Your task to perform on an android device: Clear the cart on bestbuy.com. Search for acer predator on bestbuy.com, select the first entry, and add it to the cart. Image 0: 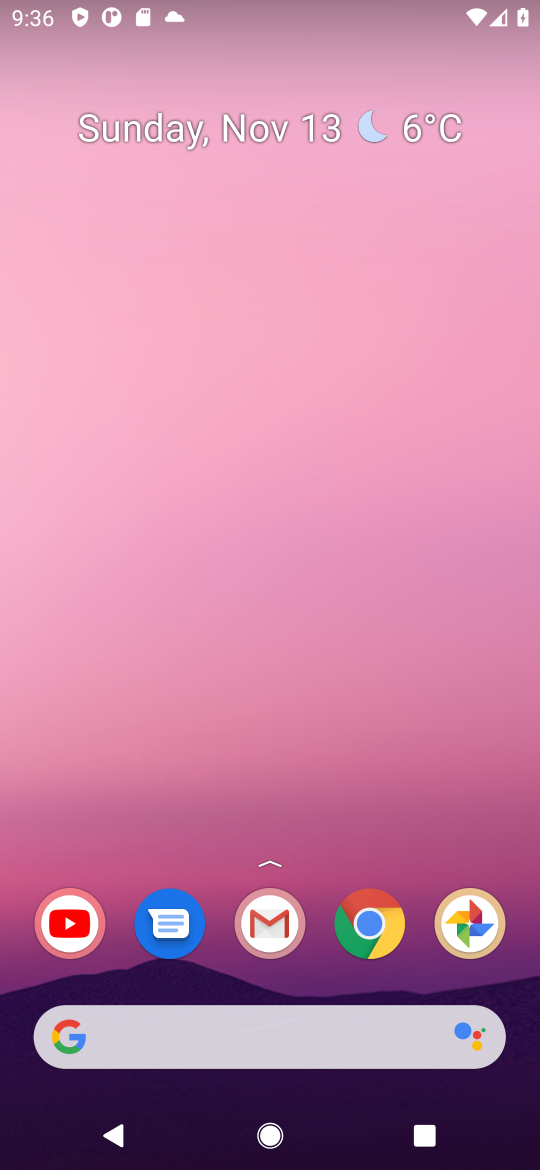
Step 0: click (359, 927)
Your task to perform on an android device: Clear the cart on bestbuy.com. Search for acer predator on bestbuy.com, select the first entry, and add it to the cart. Image 1: 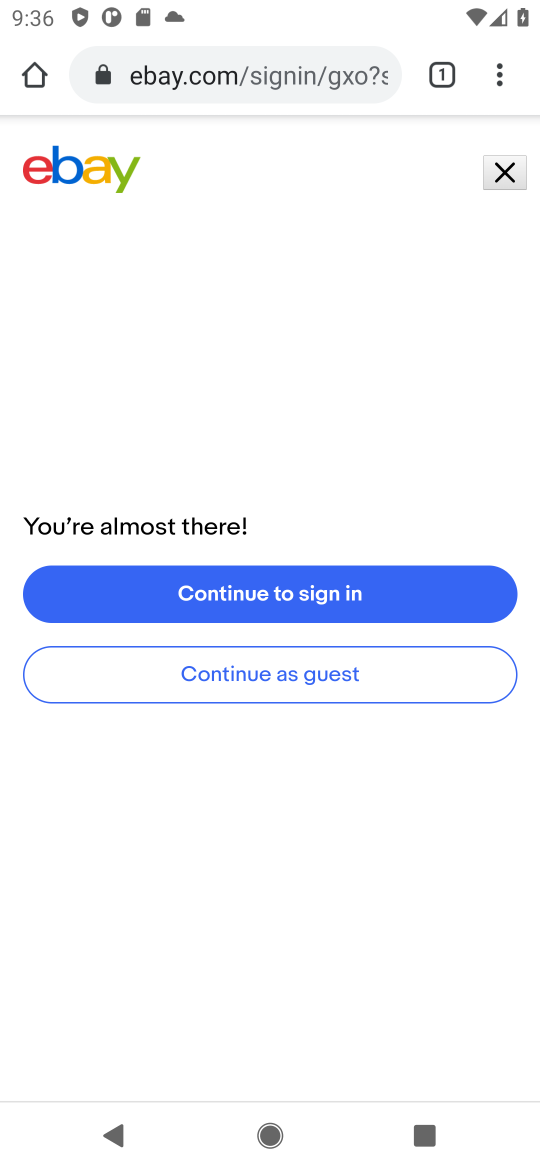
Step 1: click (297, 57)
Your task to perform on an android device: Clear the cart on bestbuy.com. Search for acer predator on bestbuy.com, select the first entry, and add it to the cart. Image 2: 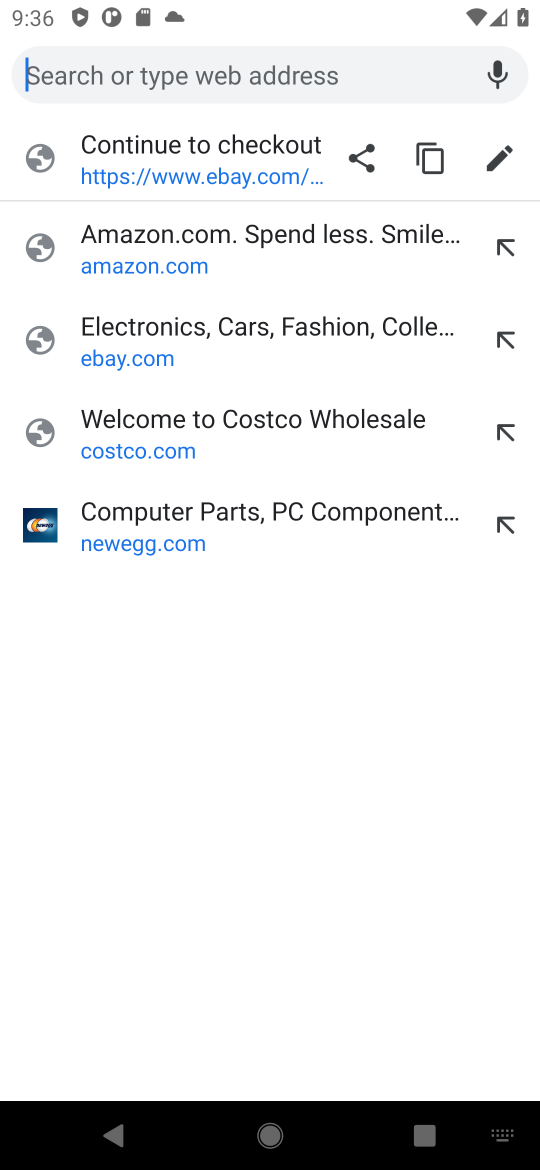
Step 2: type "bestbuy.com"
Your task to perform on an android device: Clear the cart on bestbuy.com. Search for acer predator on bestbuy.com, select the first entry, and add it to the cart. Image 3: 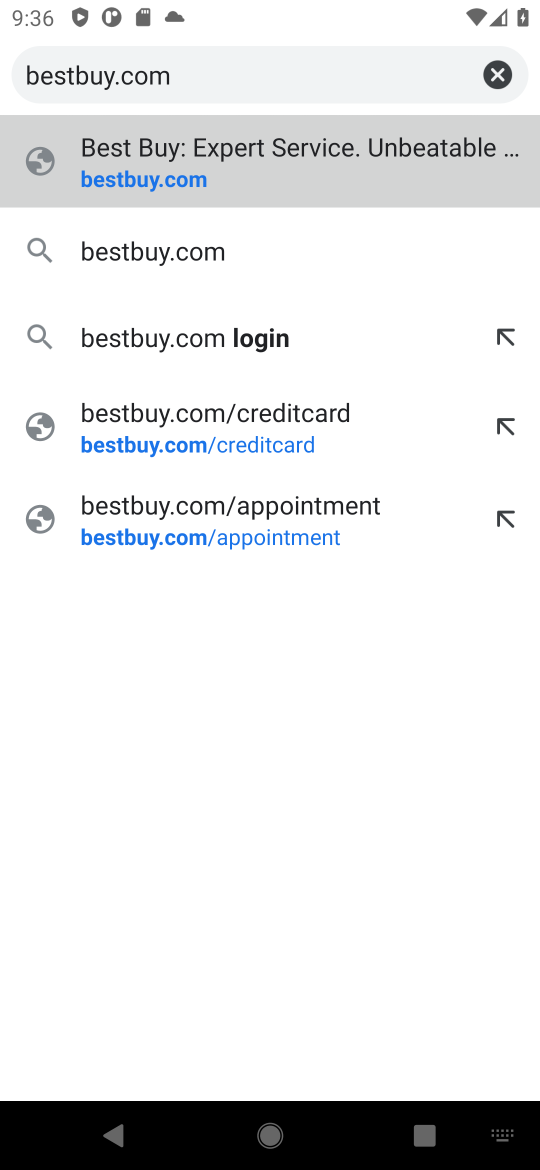
Step 3: press enter
Your task to perform on an android device: Clear the cart on bestbuy.com. Search for acer predator on bestbuy.com, select the first entry, and add it to the cart. Image 4: 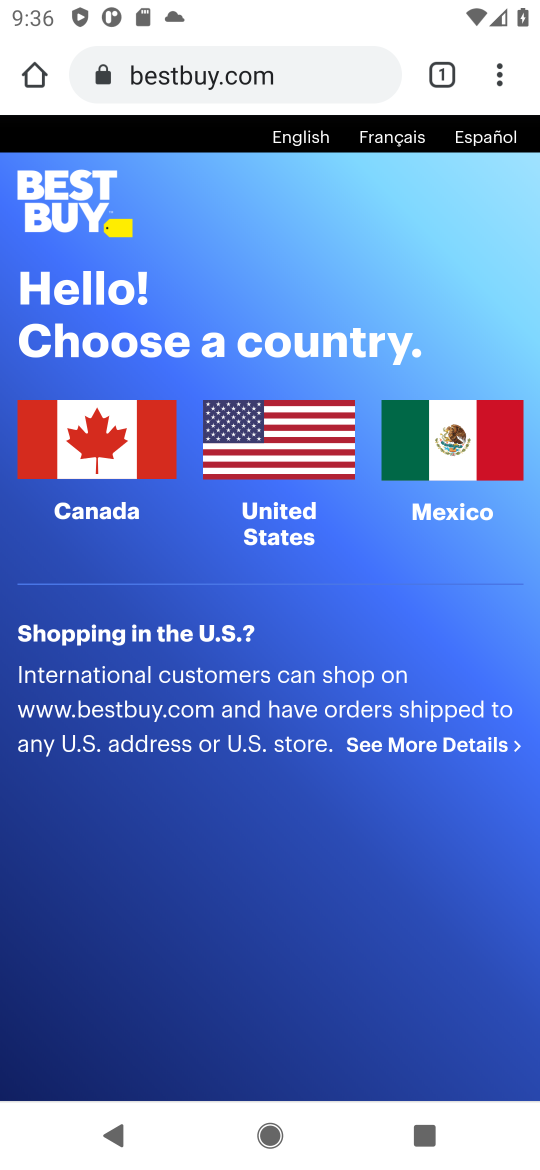
Step 4: click (257, 452)
Your task to perform on an android device: Clear the cart on bestbuy.com. Search for acer predator on bestbuy.com, select the first entry, and add it to the cart. Image 5: 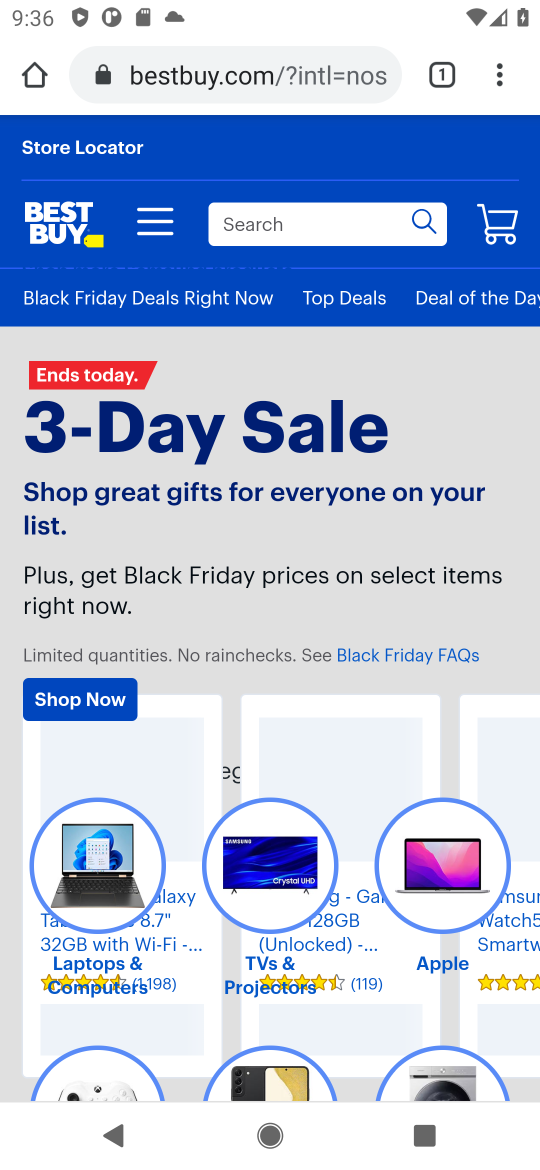
Step 5: click (500, 219)
Your task to perform on an android device: Clear the cart on bestbuy.com. Search for acer predator on bestbuy.com, select the first entry, and add it to the cart. Image 6: 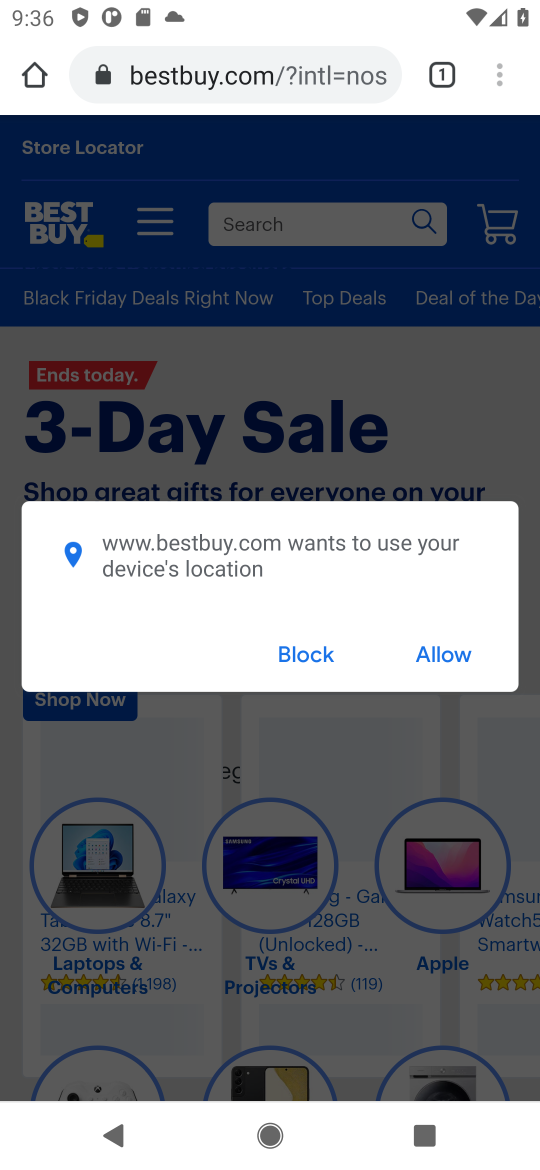
Step 6: click (318, 657)
Your task to perform on an android device: Clear the cart on bestbuy.com. Search for acer predator on bestbuy.com, select the first entry, and add it to the cart. Image 7: 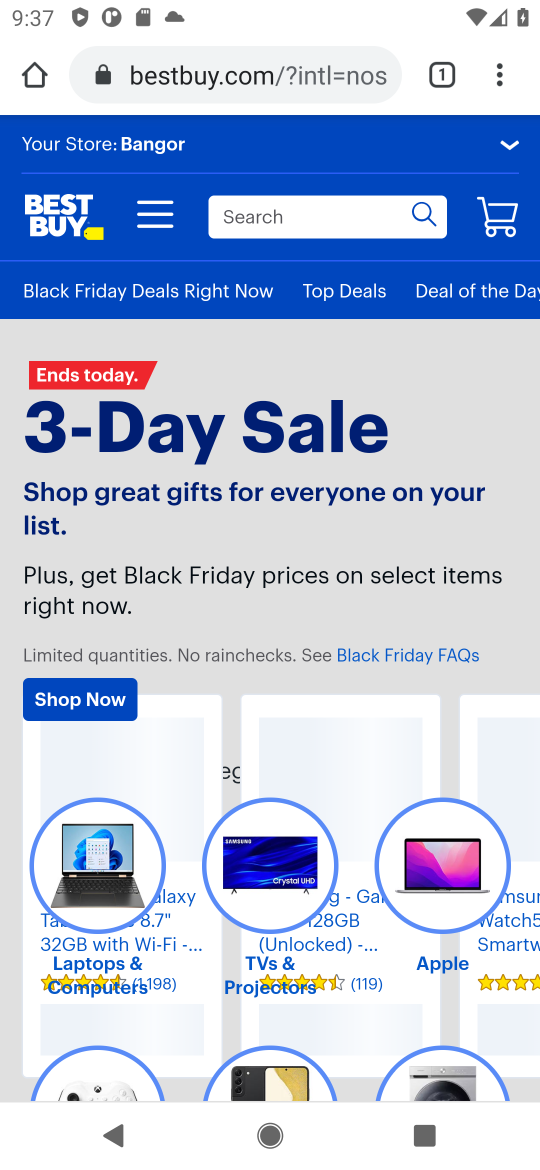
Step 7: click (360, 215)
Your task to perform on an android device: Clear the cart on bestbuy.com. Search for acer predator on bestbuy.com, select the first entry, and add it to the cart. Image 8: 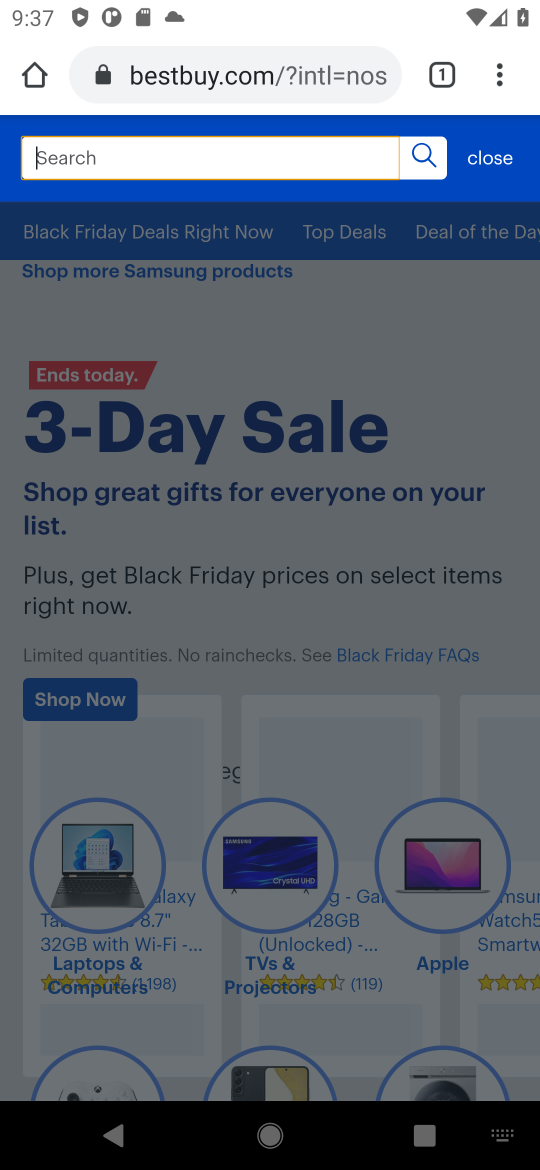
Step 8: type "acer predator"
Your task to perform on an android device: Clear the cart on bestbuy.com. Search for acer predator on bestbuy.com, select the first entry, and add it to the cart. Image 9: 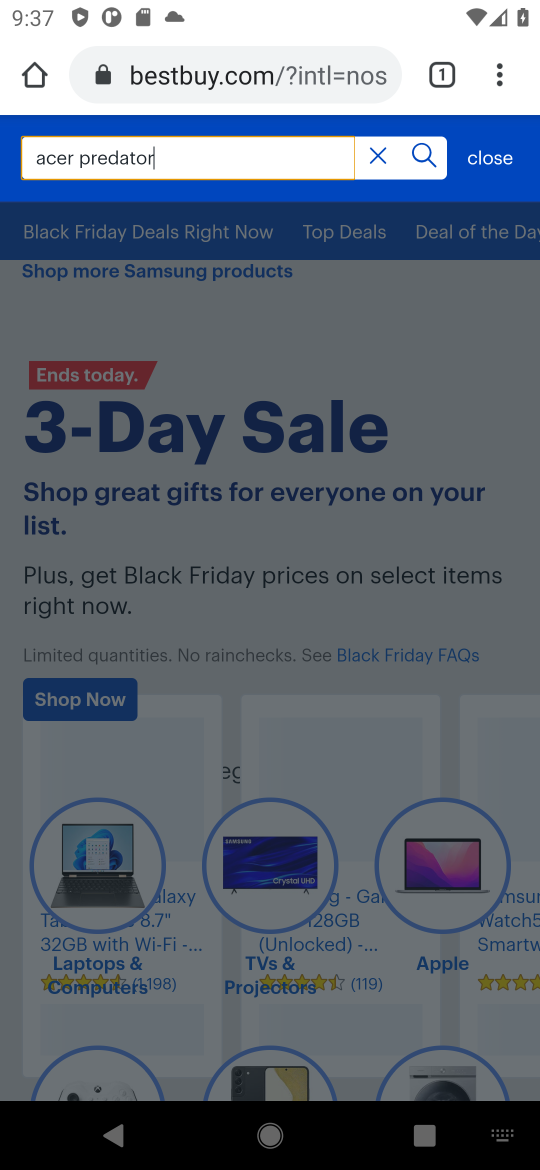
Step 9: press enter
Your task to perform on an android device: Clear the cart on bestbuy.com. Search for acer predator on bestbuy.com, select the first entry, and add it to the cart. Image 10: 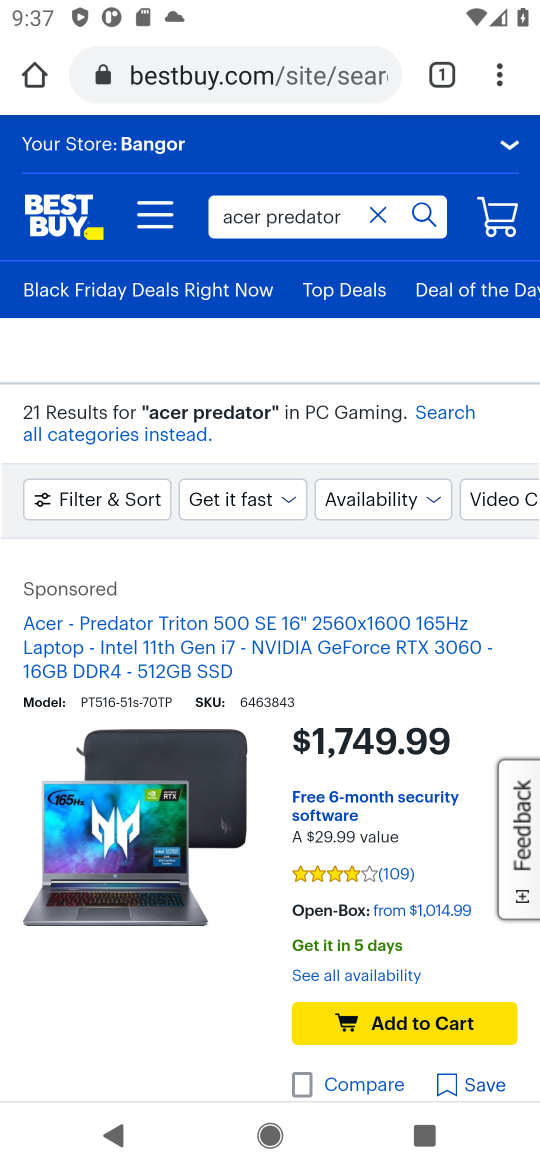
Step 10: click (169, 860)
Your task to perform on an android device: Clear the cart on bestbuy.com. Search for acer predator on bestbuy.com, select the first entry, and add it to the cart. Image 11: 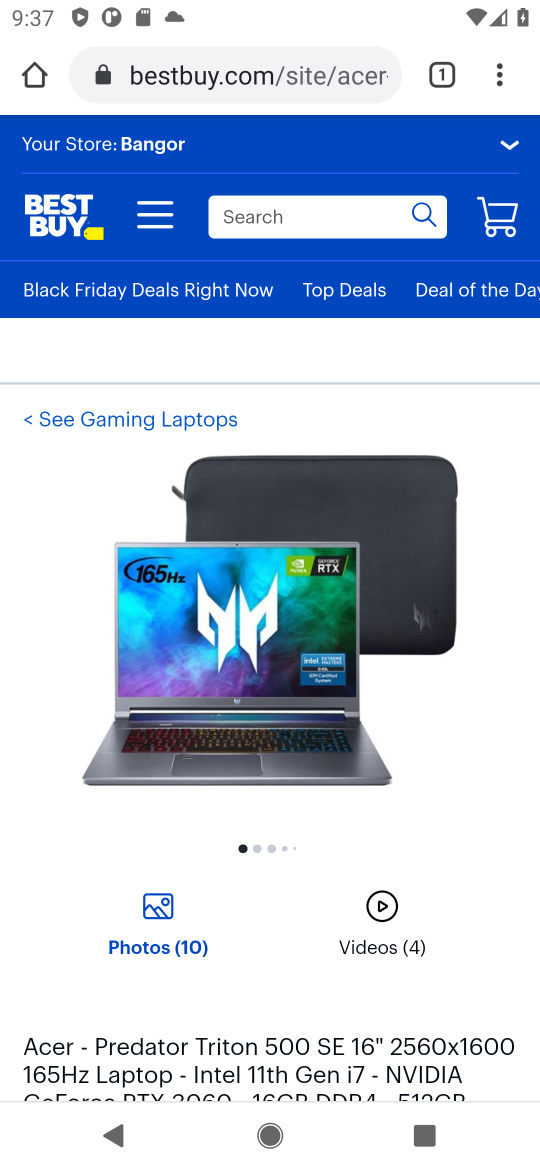
Step 11: drag from (387, 754) to (435, 414)
Your task to perform on an android device: Clear the cart on bestbuy.com. Search for acer predator on bestbuy.com, select the first entry, and add it to the cart. Image 12: 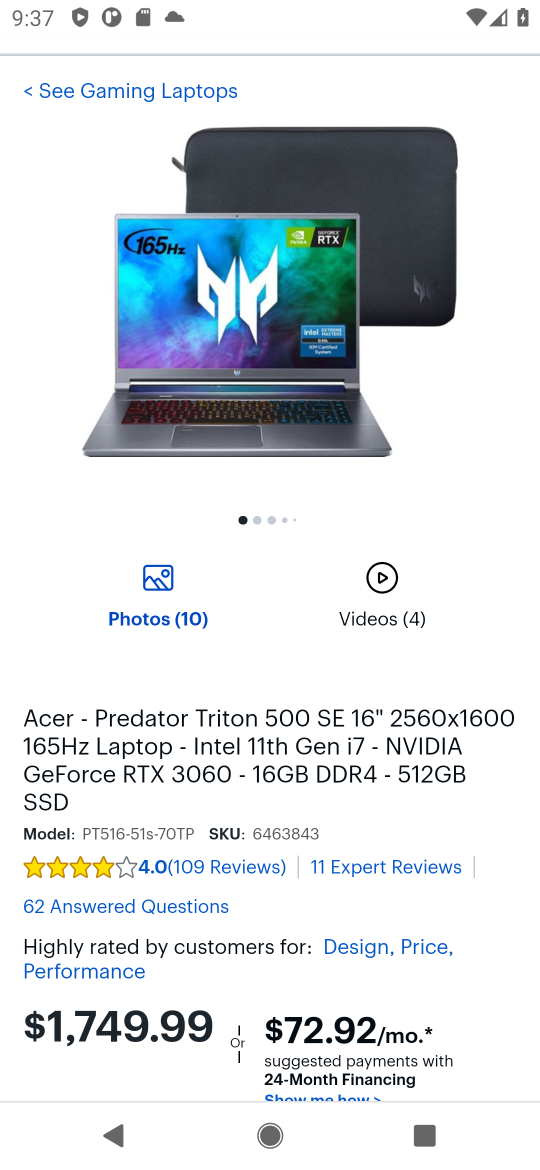
Step 12: drag from (452, 845) to (511, 167)
Your task to perform on an android device: Clear the cart on bestbuy.com. Search for acer predator on bestbuy.com, select the first entry, and add it to the cart. Image 13: 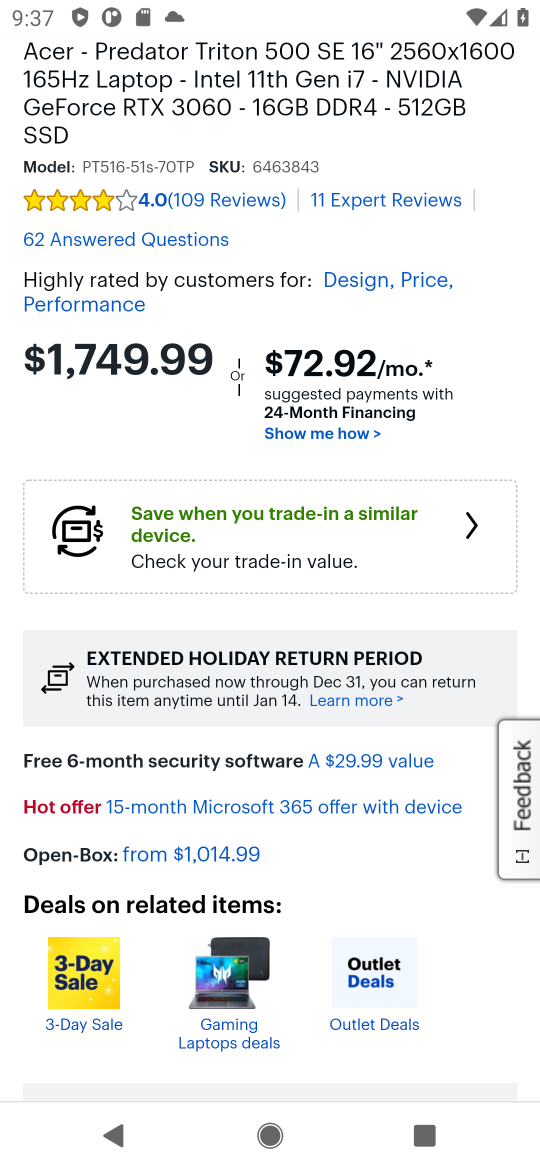
Step 13: drag from (437, 895) to (429, 118)
Your task to perform on an android device: Clear the cart on bestbuy.com. Search for acer predator on bestbuy.com, select the first entry, and add it to the cart. Image 14: 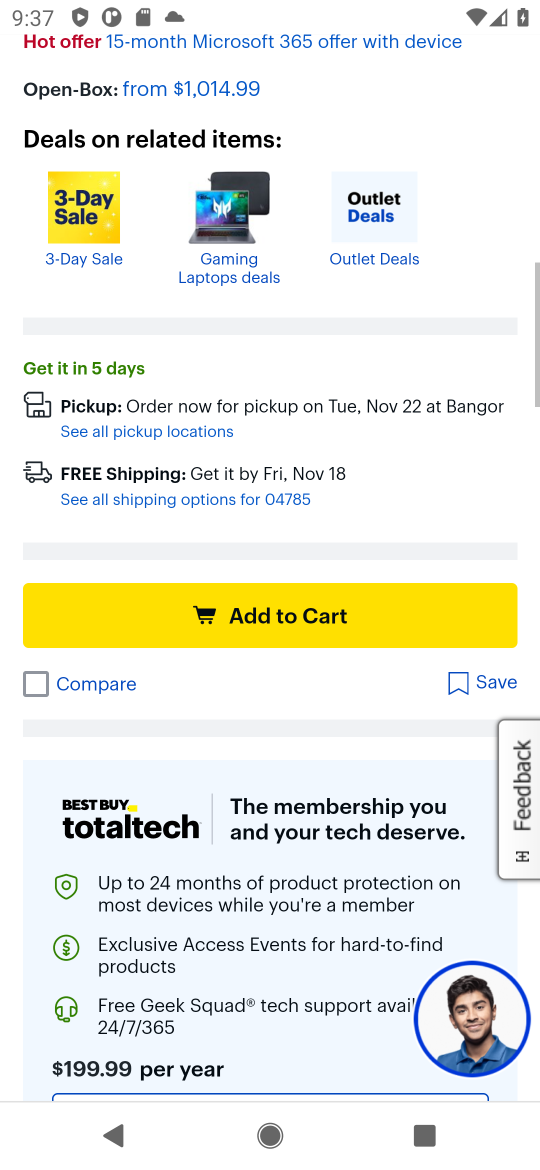
Step 14: click (345, 619)
Your task to perform on an android device: Clear the cart on bestbuy.com. Search for acer predator on bestbuy.com, select the first entry, and add it to the cart. Image 15: 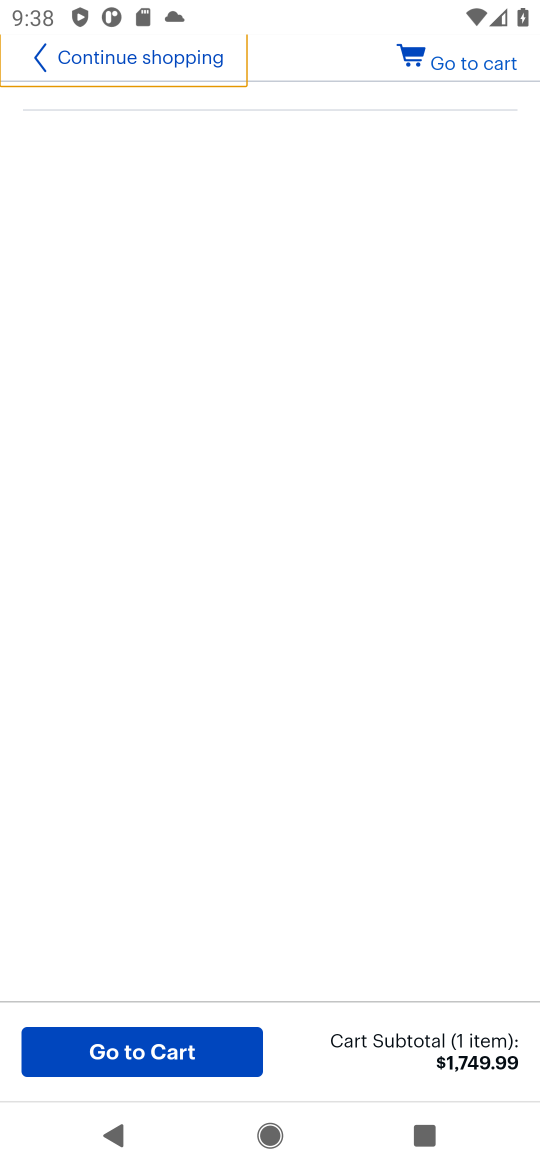
Step 15: task complete